Your task to perform on an android device: Go to ESPN.com Image 0: 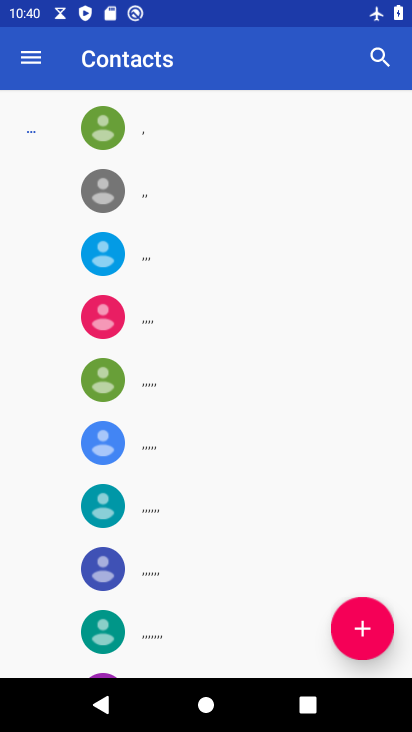
Step 0: press home button
Your task to perform on an android device: Go to ESPN.com Image 1: 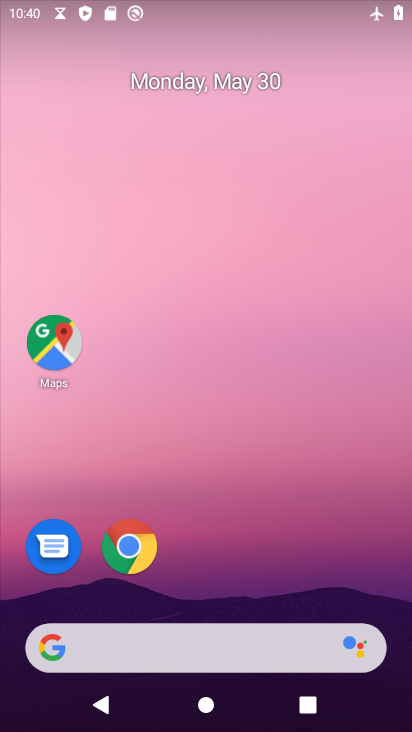
Step 1: click (125, 542)
Your task to perform on an android device: Go to ESPN.com Image 2: 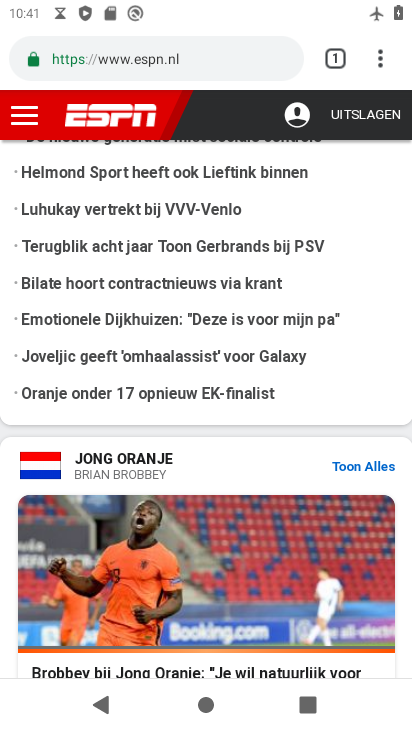
Step 2: task complete